Your task to perform on an android device: Show the shopping cart on target. Add "macbook pro 15 inch" to the cart on target, then select checkout. Image 0: 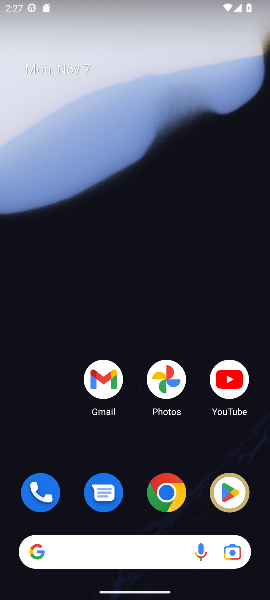
Step 0: click (165, 495)
Your task to perform on an android device: Show the shopping cart on target. Add "macbook pro 15 inch" to the cart on target, then select checkout. Image 1: 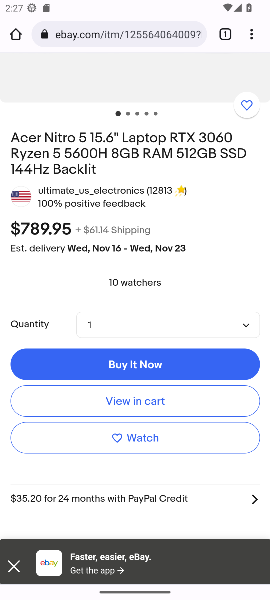
Step 1: click (168, 33)
Your task to perform on an android device: Show the shopping cart on target. Add "macbook pro 15 inch" to the cart on target, then select checkout. Image 2: 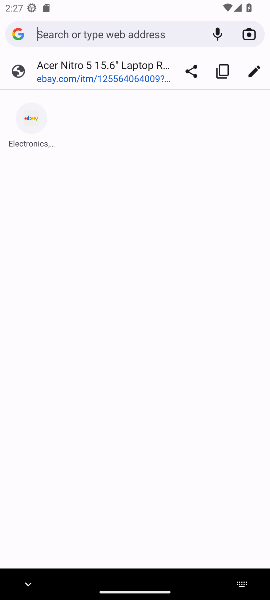
Step 2: type "target"
Your task to perform on an android device: Show the shopping cart on target. Add "macbook pro 15 inch" to the cart on target, then select checkout. Image 3: 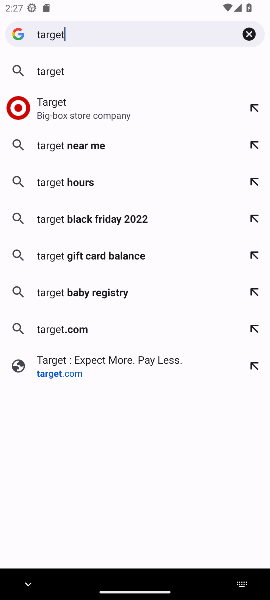
Step 3: click (52, 73)
Your task to perform on an android device: Show the shopping cart on target. Add "macbook pro 15 inch" to the cart on target, then select checkout. Image 4: 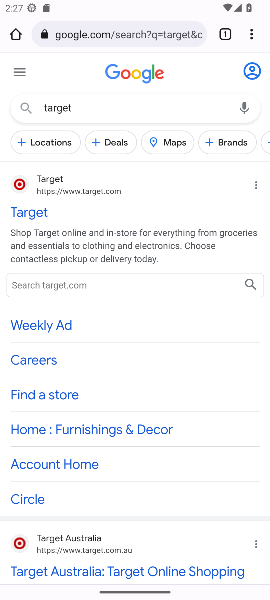
Step 4: click (32, 218)
Your task to perform on an android device: Show the shopping cart on target. Add "macbook pro 15 inch" to the cart on target, then select checkout. Image 5: 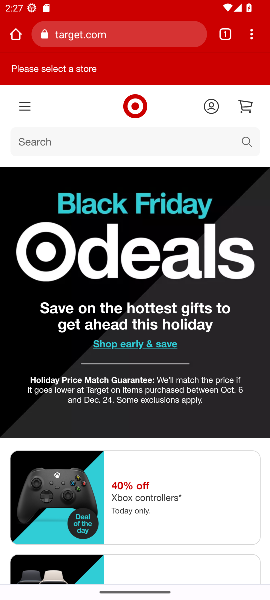
Step 5: click (242, 106)
Your task to perform on an android device: Show the shopping cart on target. Add "macbook pro 15 inch" to the cart on target, then select checkout. Image 6: 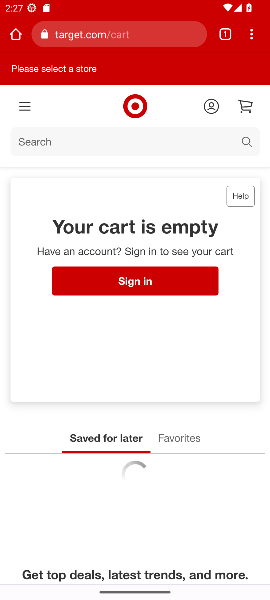
Step 6: click (185, 144)
Your task to perform on an android device: Show the shopping cart on target. Add "macbook pro 15 inch" to the cart on target, then select checkout. Image 7: 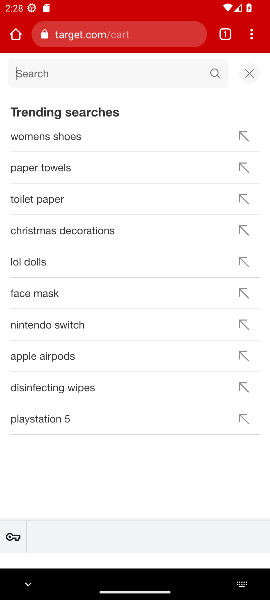
Step 7: type "macbook pro 15 inch"
Your task to perform on an android device: Show the shopping cart on target. Add "macbook pro 15 inch" to the cart on target, then select checkout. Image 8: 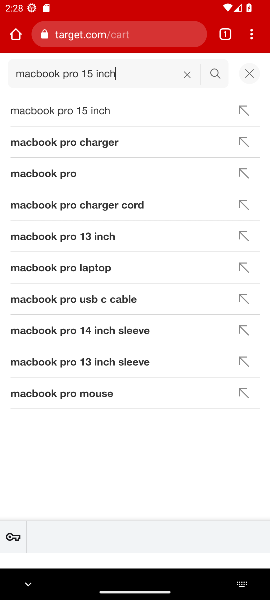
Step 8: click (82, 112)
Your task to perform on an android device: Show the shopping cart on target. Add "macbook pro 15 inch" to the cart on target, then select checkout. Image 9: 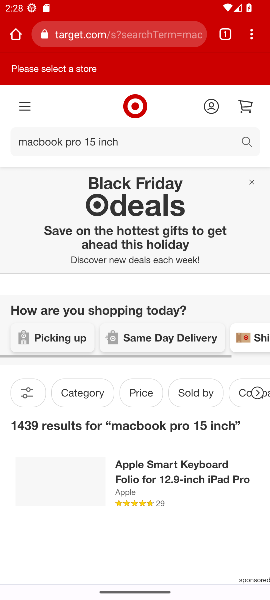
Step 9: task complete